Your task to perform on an android device: check google app version Image 0: 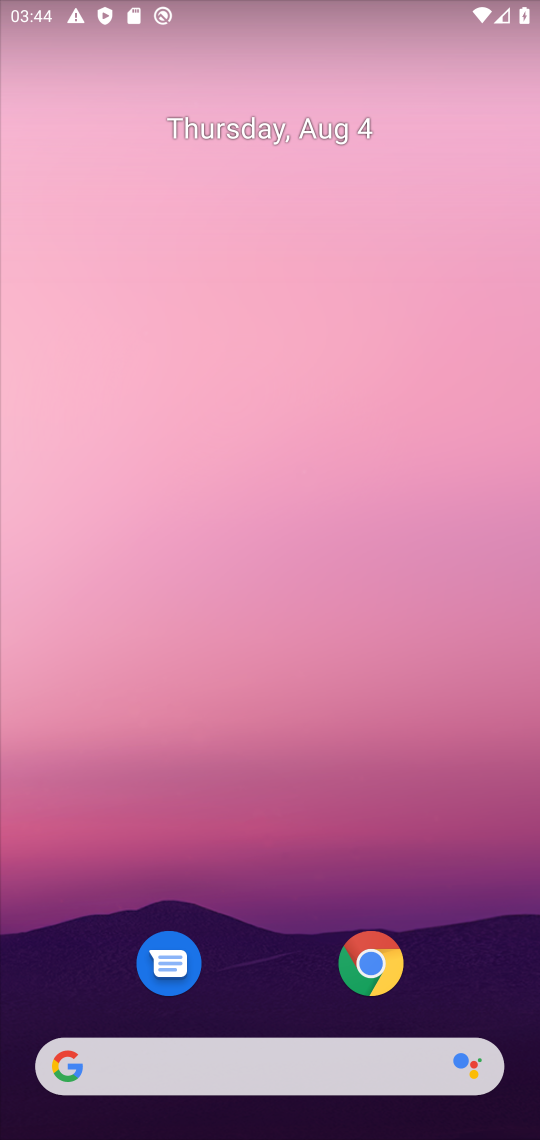
Step 0: drag from (298, 976) to (314, 68)
Your task to perform on an android device: check google app version Image 1: 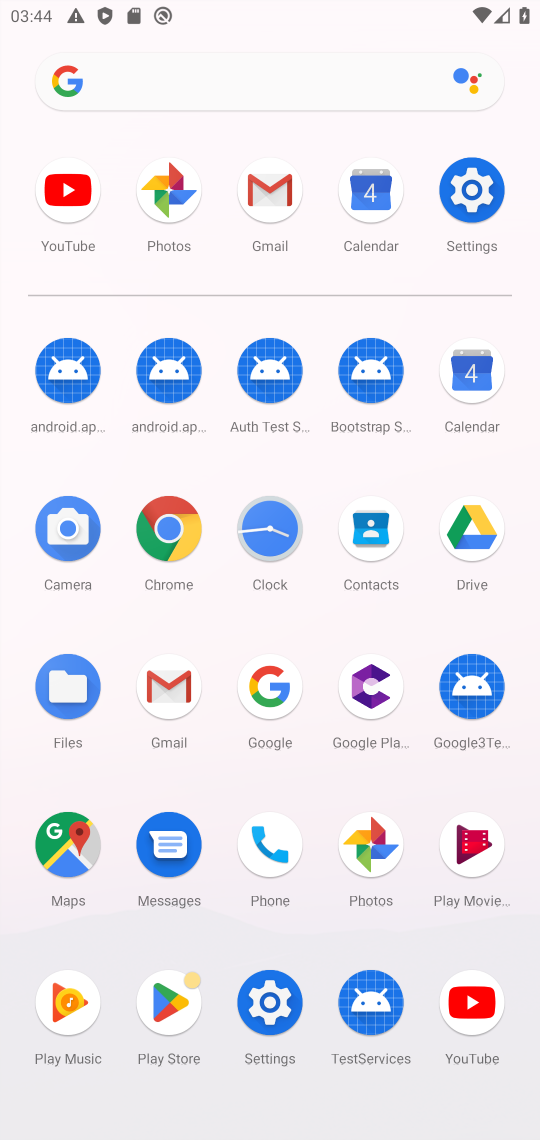
Step 1: click (264, 692)
Your task to perform on an android device: check google app version Image 2: 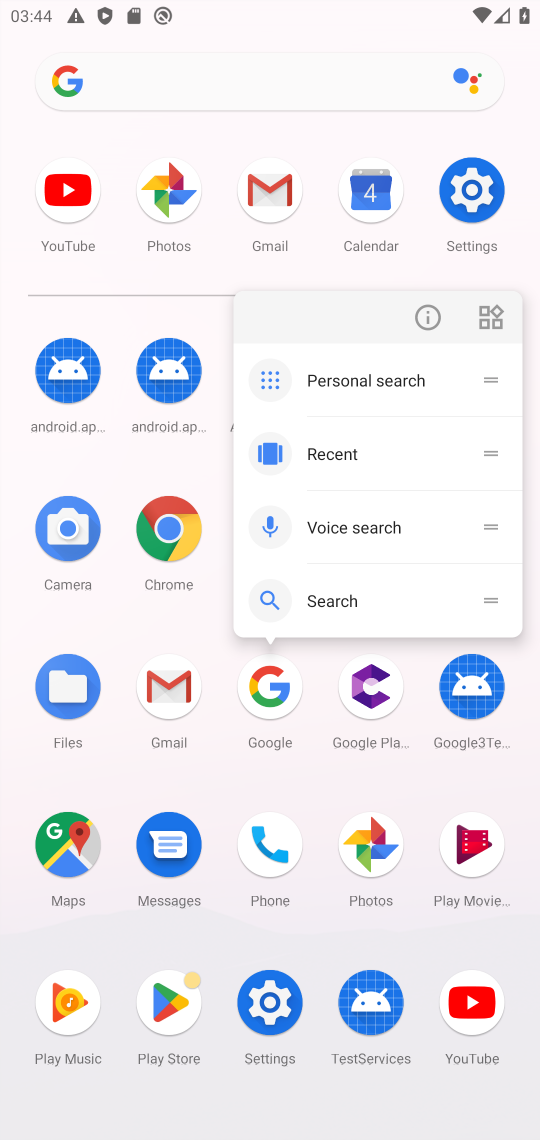
Step 2: click (433, 319)
Your task to perform on an android device: check google app version Image 3: 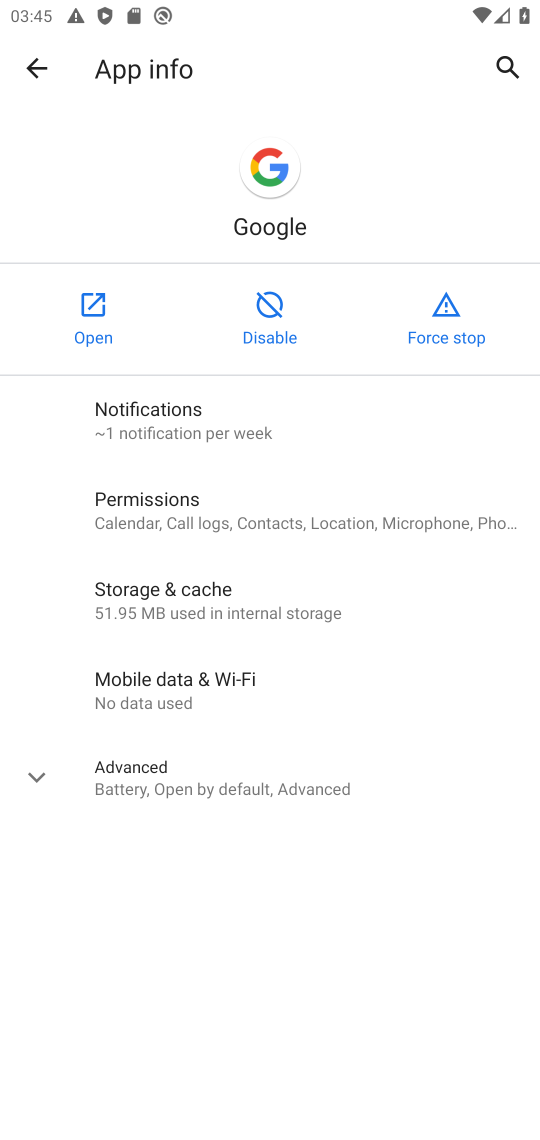
Step 3: click (39, 790)
Your task to perform on an android device: check google app version Image 4: 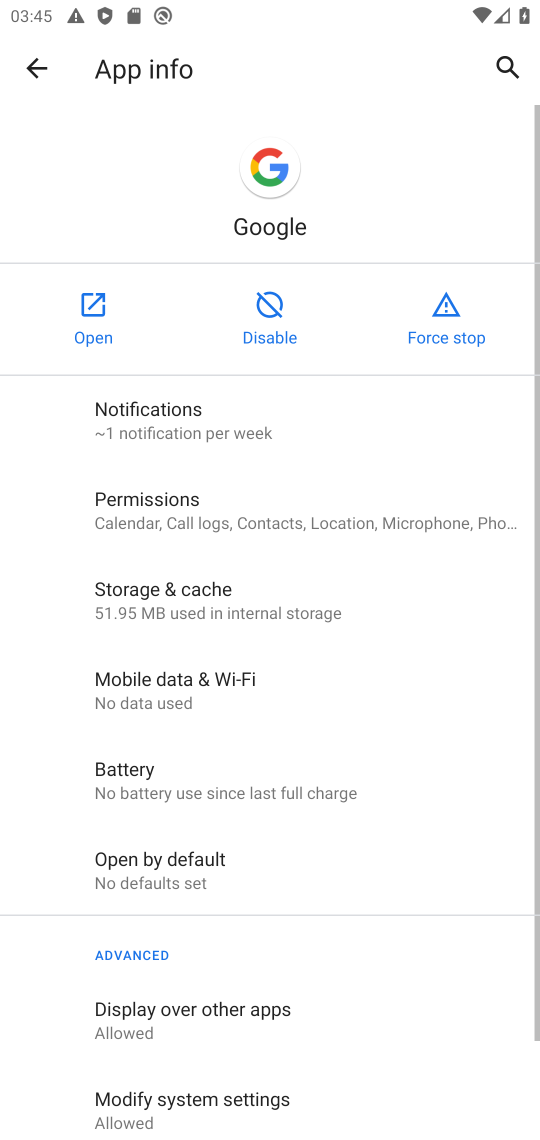
Step 4: task complete